Your task to perform on an android device: Open CNN.com Image 0: 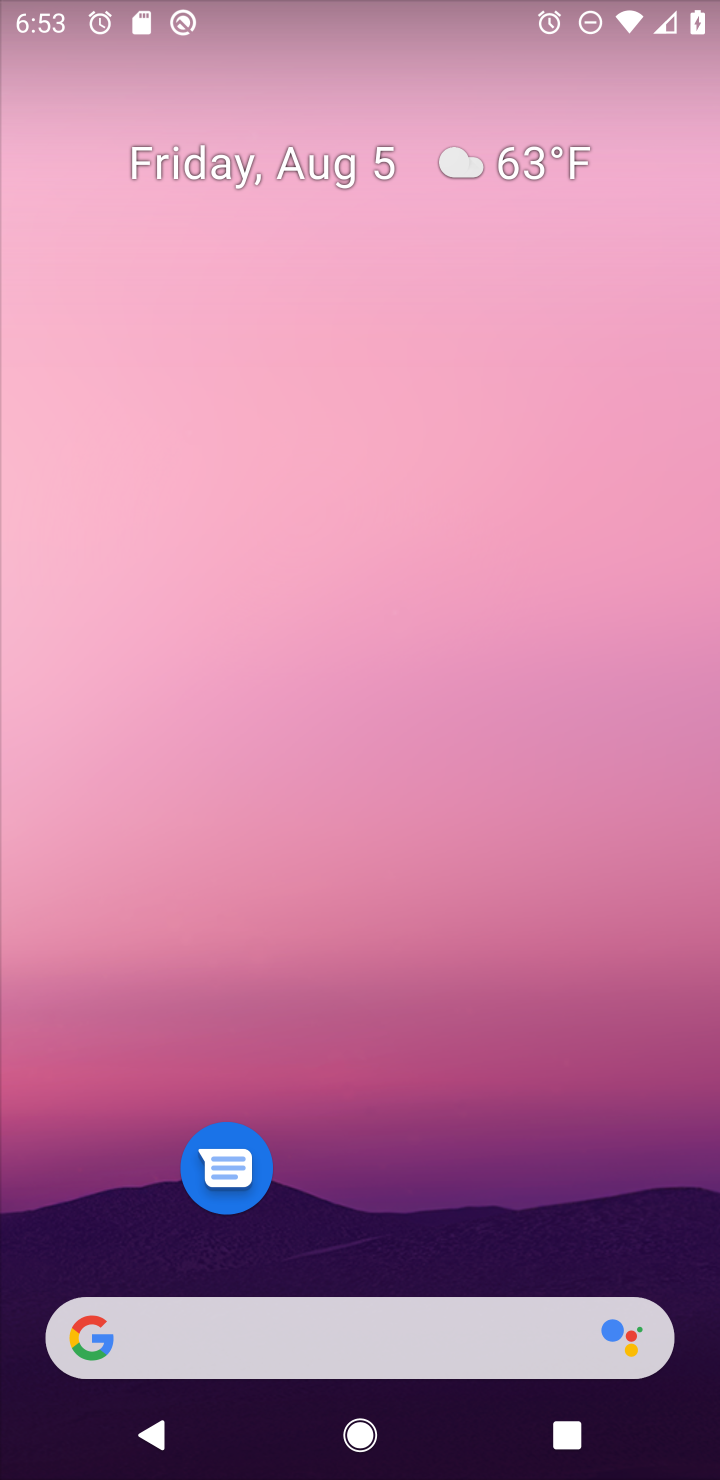
Step 0: press home button
Your task to perform on an android device: Open CNN.com Image 1: 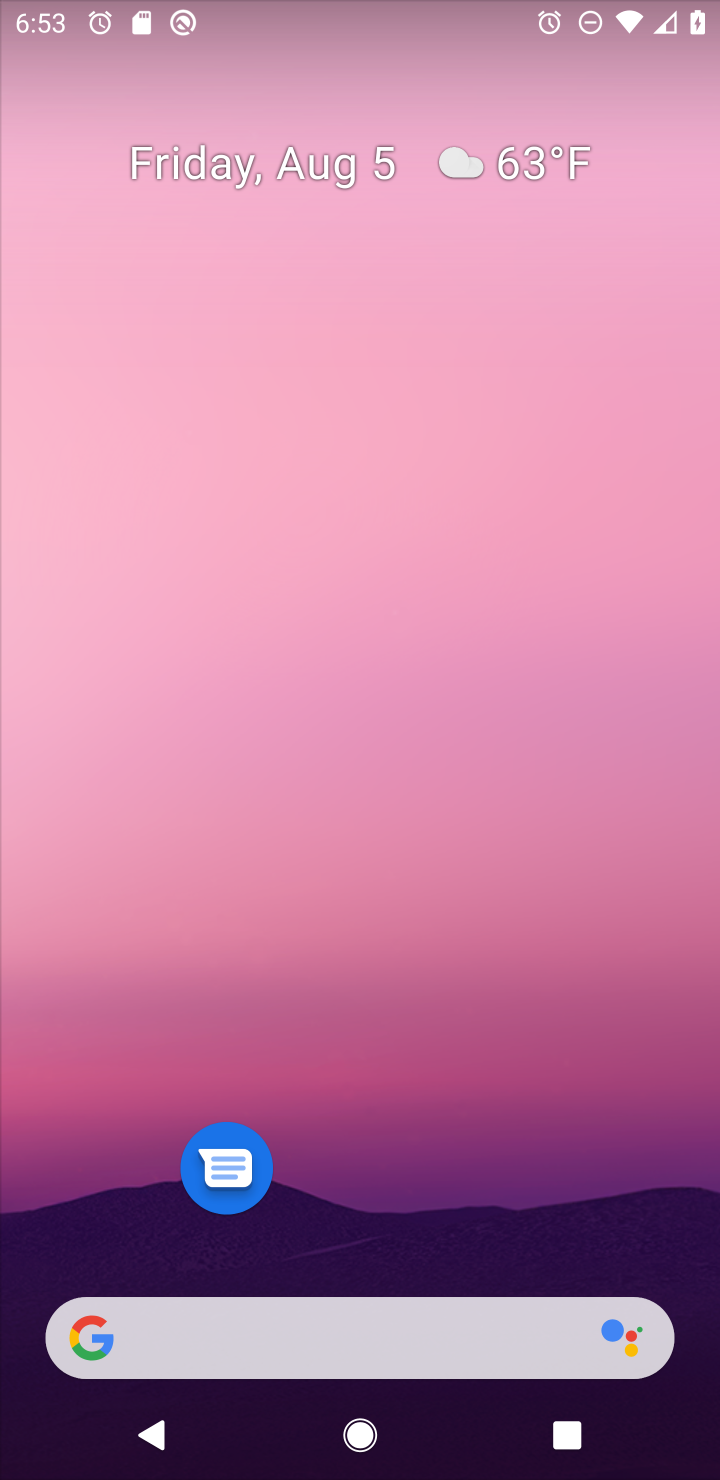
Step 1: click (84, 1340)
Your task to perform on an android device: Open CNN.com Image 2: 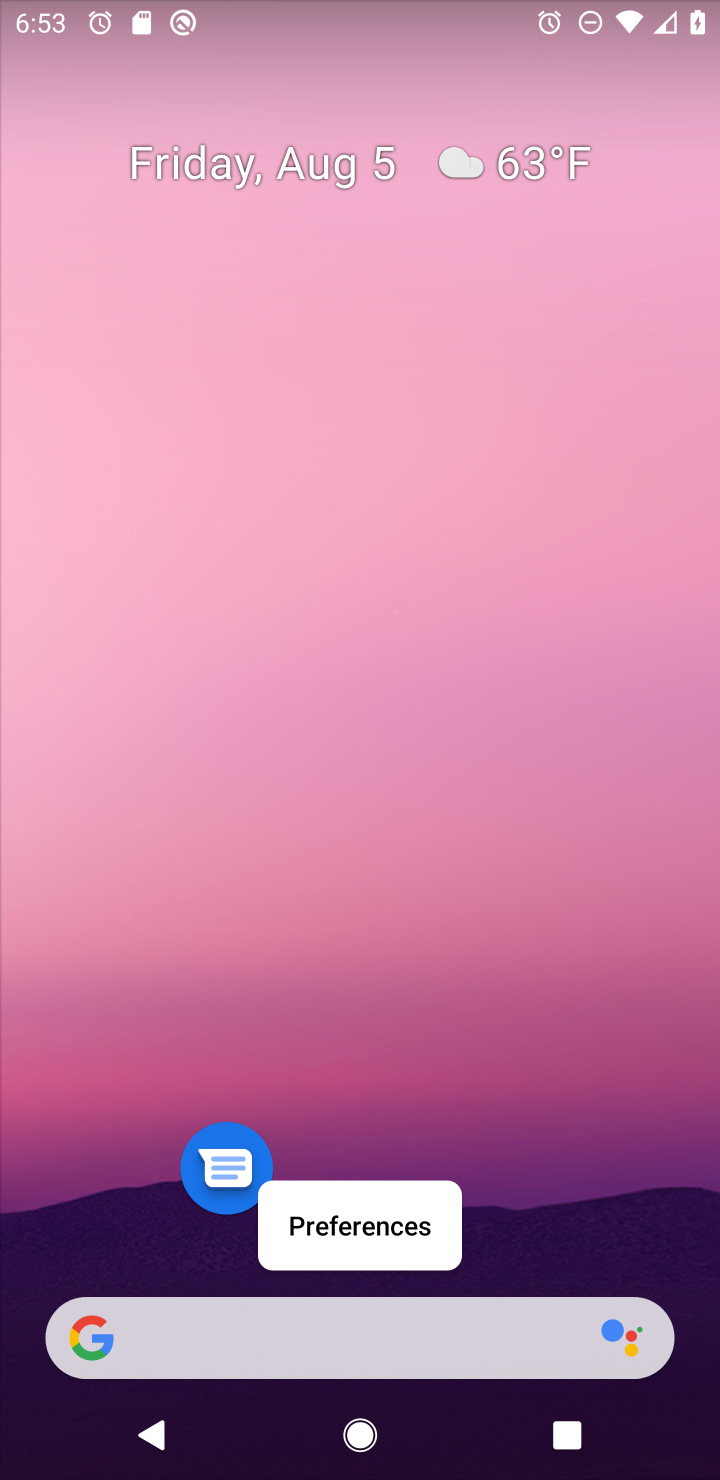
Step 2: click (98, 1346)
Your task to perform on an android device: Open CNN.com Image 3: 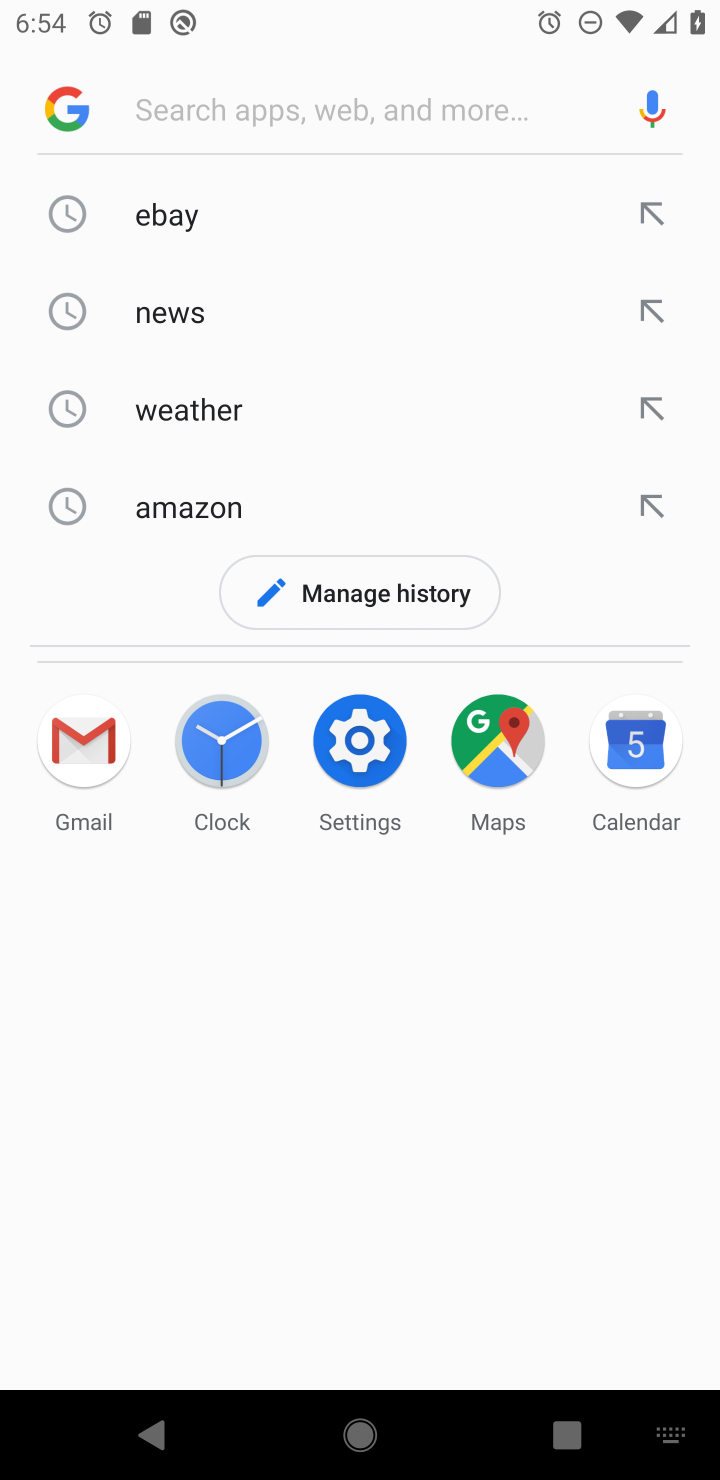
Step 3: type " CNN.com"
Your task to perform on an android device: Open CNN.com Image 4: 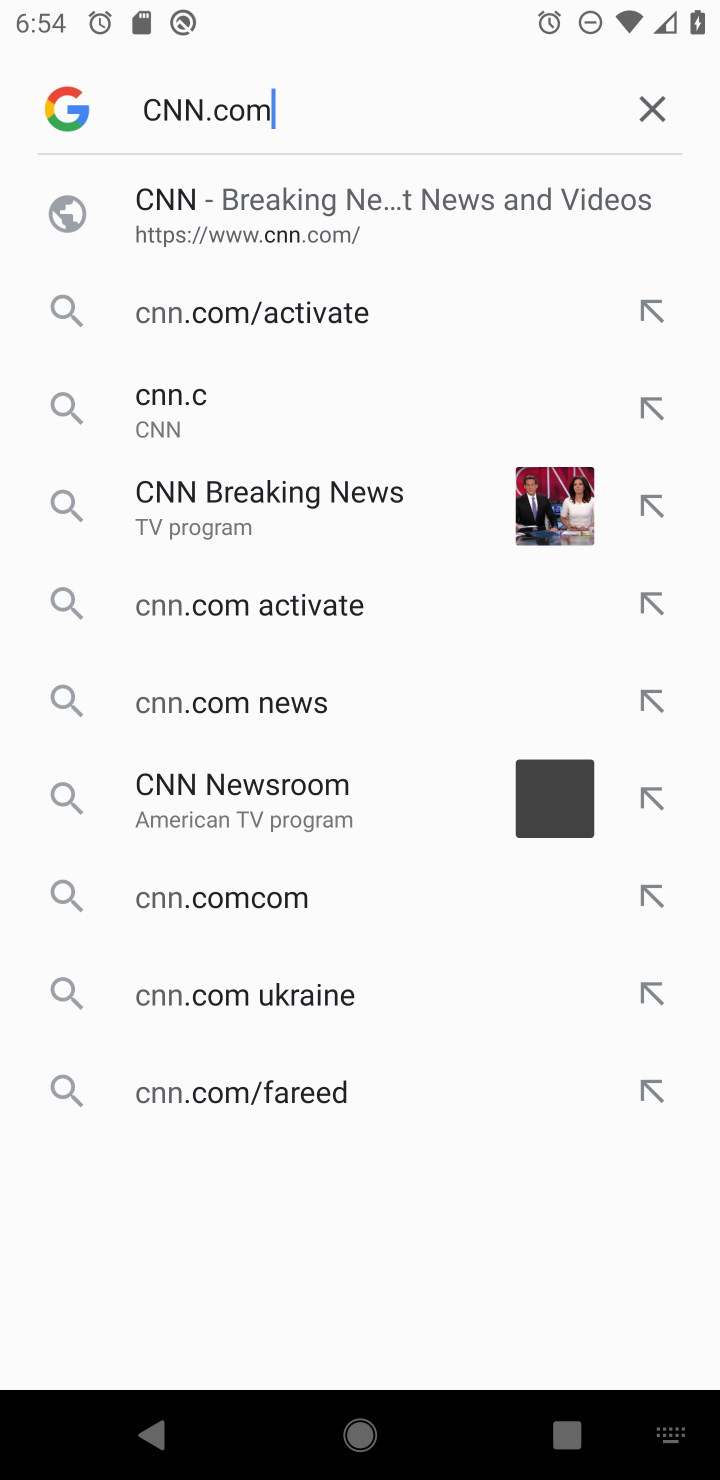
Step 4: press enter
Your task to perform on an android device: Open CNN.com Image 5: 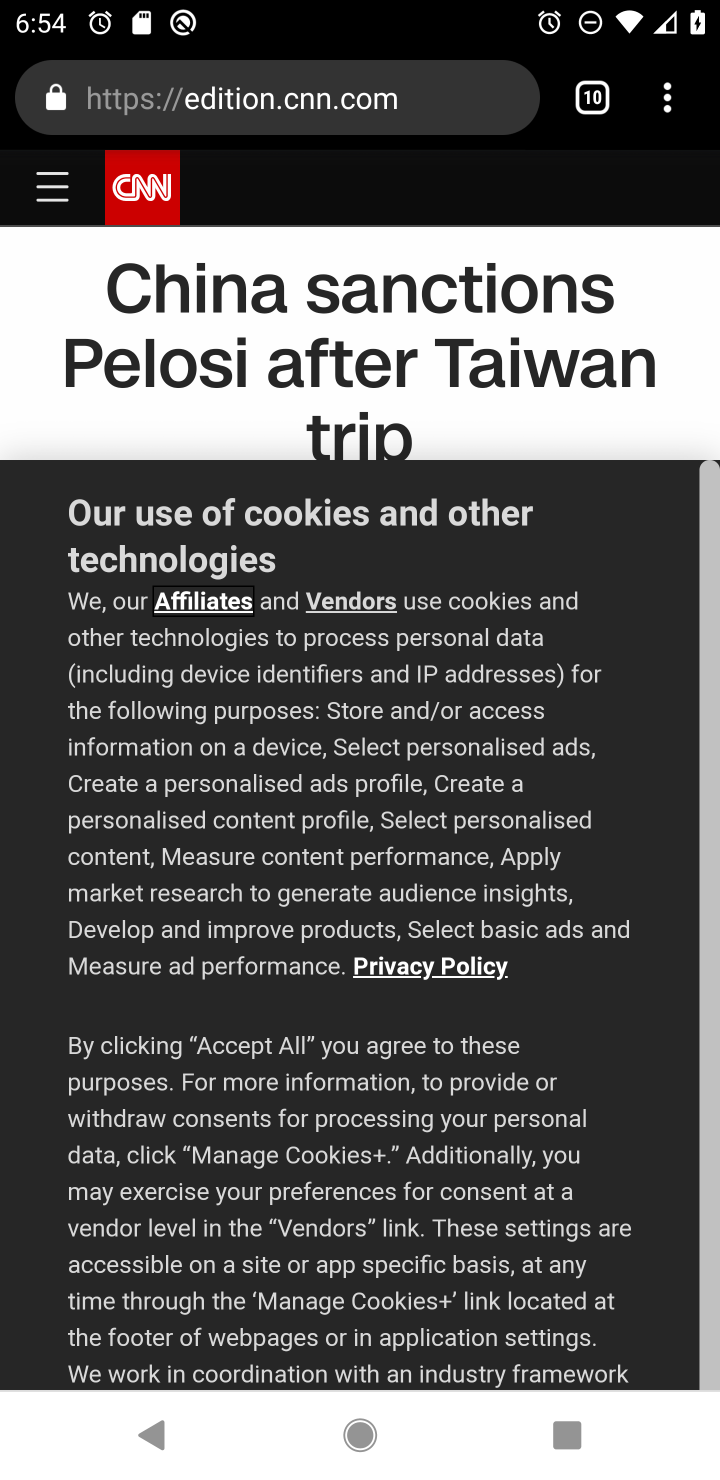
Step 5: task complete